Your task to perform on an android device: empty trash in the gmail app Image 0: 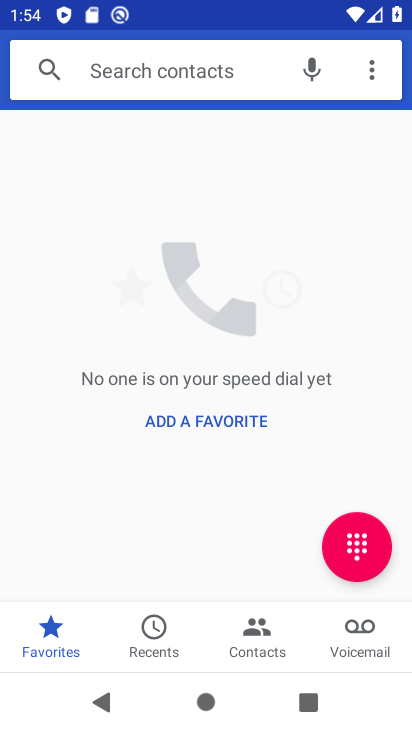
Step 0: press home button
Your task to perform on an android device: empty trash in the gmail app Image 1: 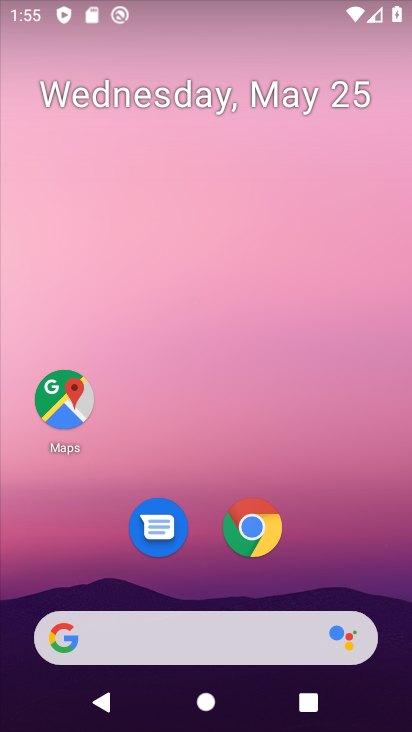
Step 1: drag from (201, 576) to (283, 24)
Your task to perform on an android device: empty trash in the gmail app Image 2: 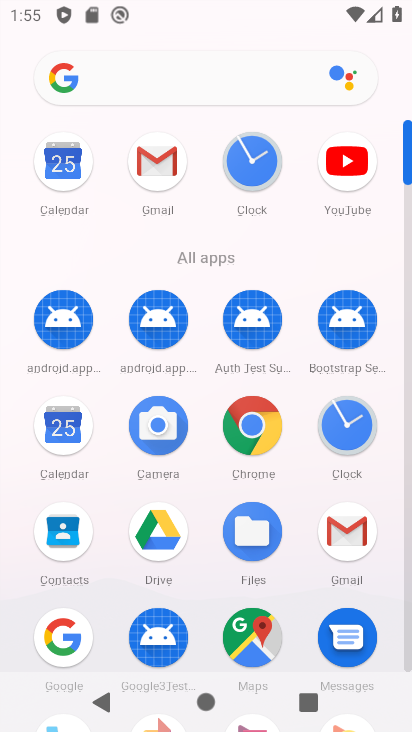
Step 2: click (338, 525)
Your task to perform on an android device: empty trash in the gmail app Image 3: 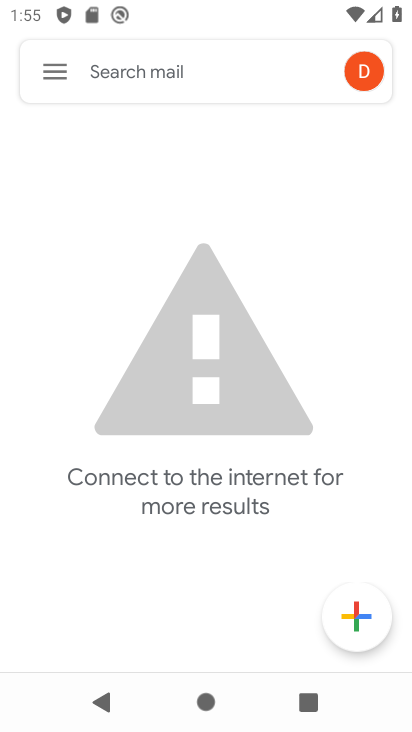
Step 3: click (68, 63)
Your task to perform on an android device: empty trash in the gmail app Image 4: 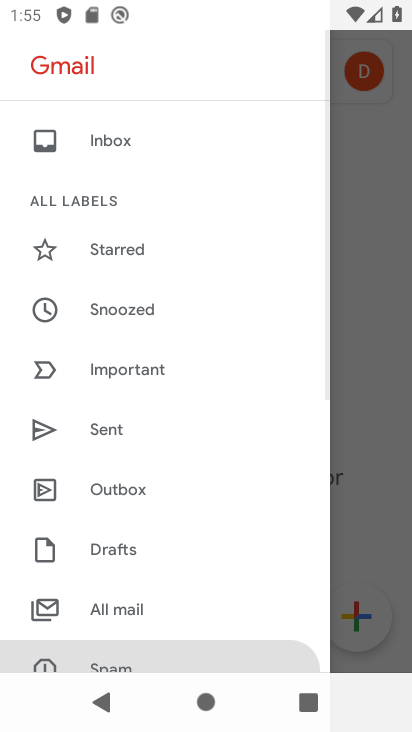
Step 4: drag from (132, 575) to (207, 116)
Your task to perform on an android device: empty trash in the gmail app Image 5: 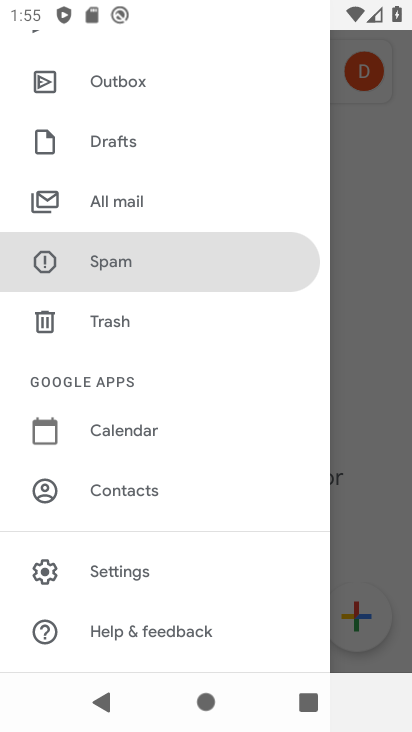
Step 5: click (131, 310)
Your task to perform on an android device: empty trash in the gmail app Image 6: 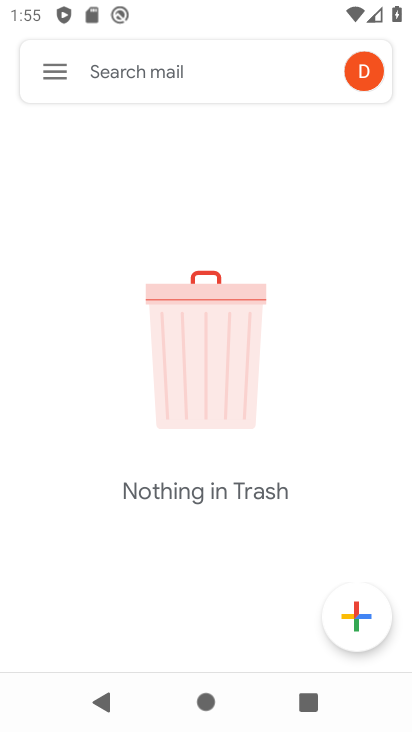
Step 6: task complete